Your task to perform on an android device: Go to settings Image 0: 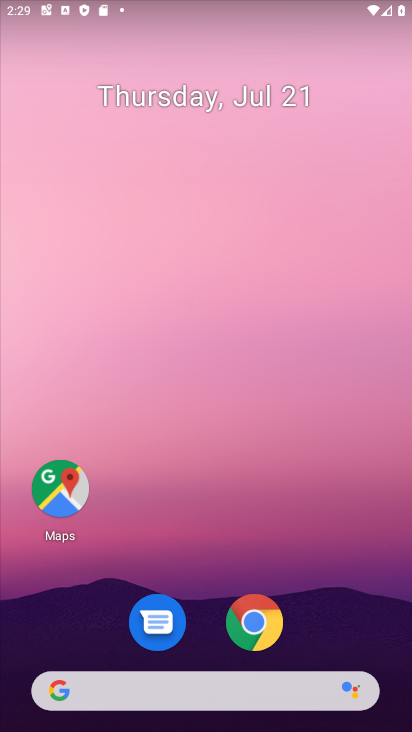
Step 0: drag from (254, 644) to (343, 229)
Your task to perform on an android device: Go to settings Image 1: 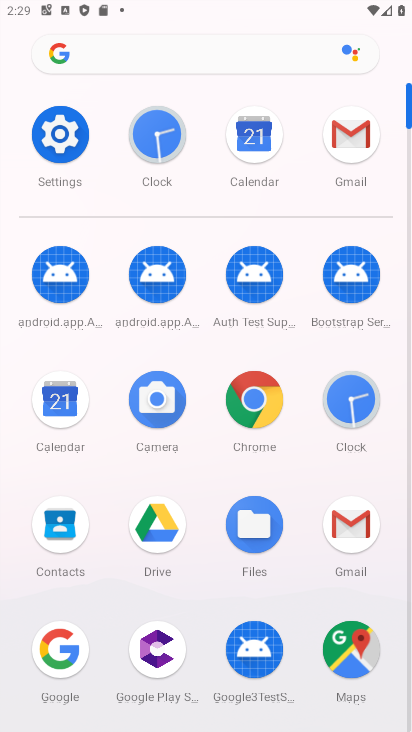
Step 1: click (54, 146)
Your task to perform on an android device: Go to settings Image 2: 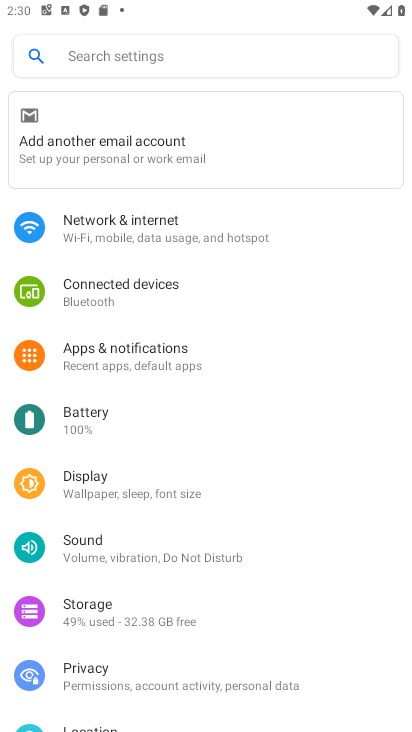
Step 2: task complete